Your task to perform on an android device: turn off notifications settings in the gmail app Image 0: 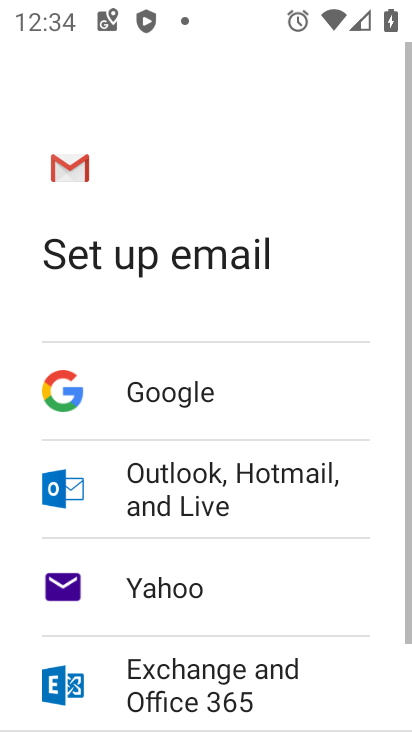
Step 0: press home button
Your task to perform on an android device: turn off notifications settings in the gmail app Image 1: 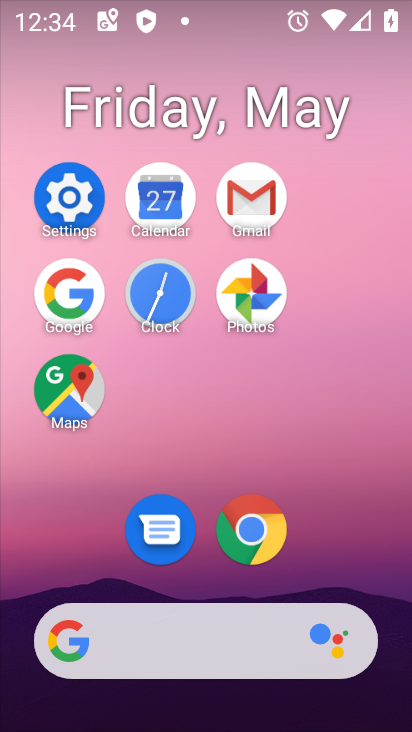
Step 1: click (269, 202)
Your task to perform on an android device: turn off notifications settings in the gmail app Image 2: 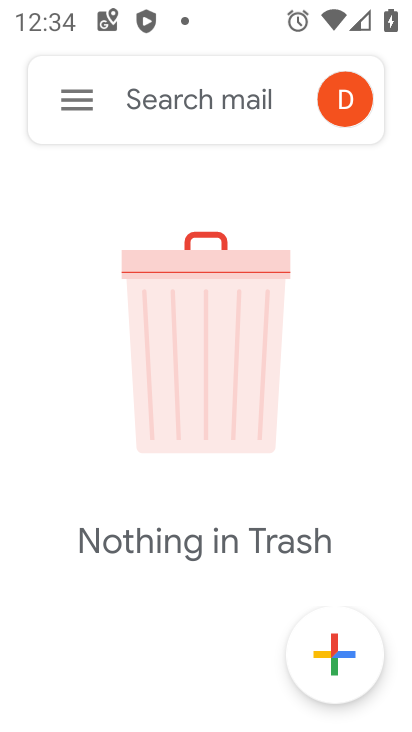
Step 2: click (84, 121)
Your task to perform on an android device: turn off notifications settings in the gmail app Image 3: 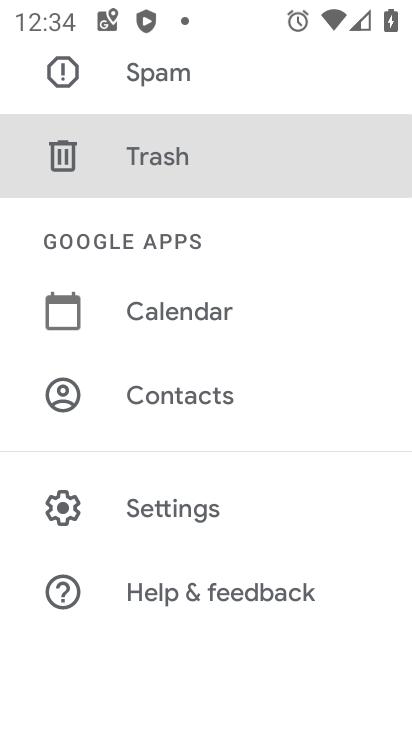
Step 3: click (235, 512)
Your task to perform on an android device: turn off notifications settings in the gmail app Image 4: 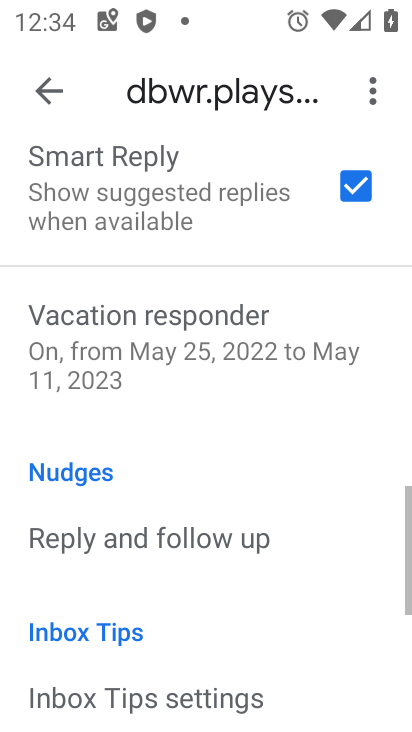
Step 4: drag from (239, 503) to (262, 188)
Your task to perform on an android device: turn off notifications settings in the gmail app Image 5: 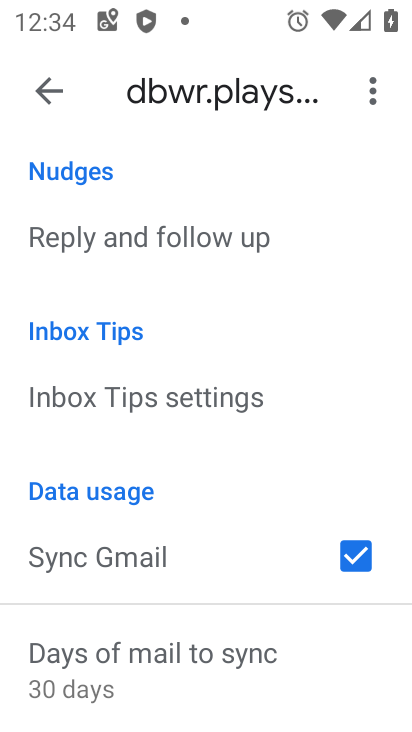
Step 5: drag from (249, 527) to (273, 154)
Your task to perform on an android device: turn off notifications settings in the gmail app Image 6: 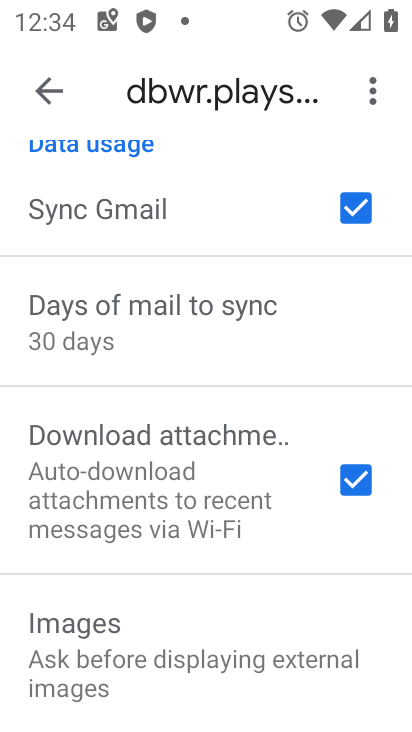
Step 6: drag from (233, 536) to (229, 168)
Your task to perform on an android device: turn off notifications settings in the gmail app Image 7: 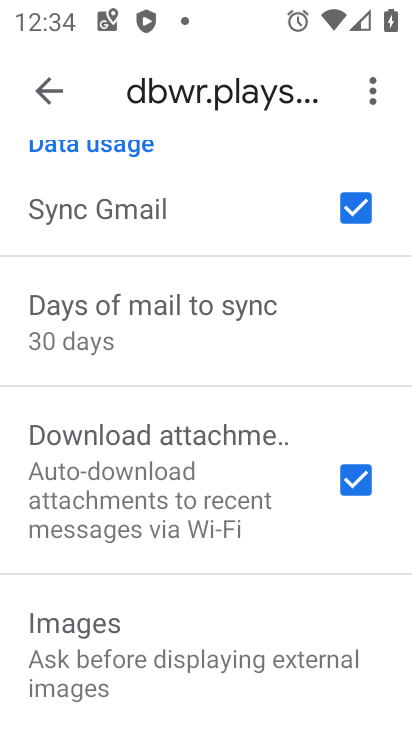
Step 7: drag from (235, 141) to (252, 614)
Your task to perform on an android device: turn off notifications settings in the gmail app Image 8: 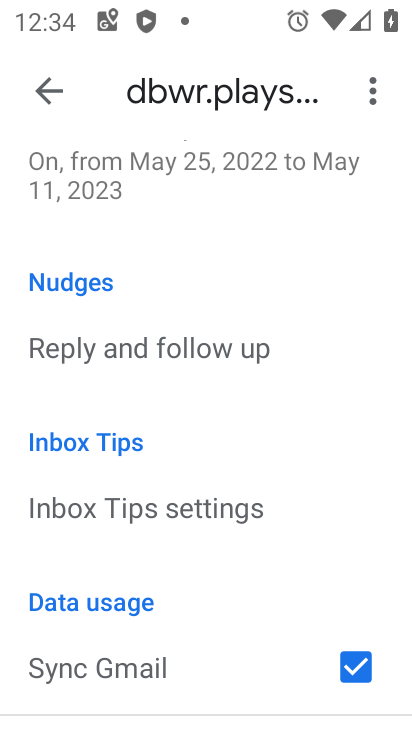
Step 8: drag from (319, 437) to (349, 623)
Your task to perform on an android device: turn off notifications settings in the gmail app Image 9: 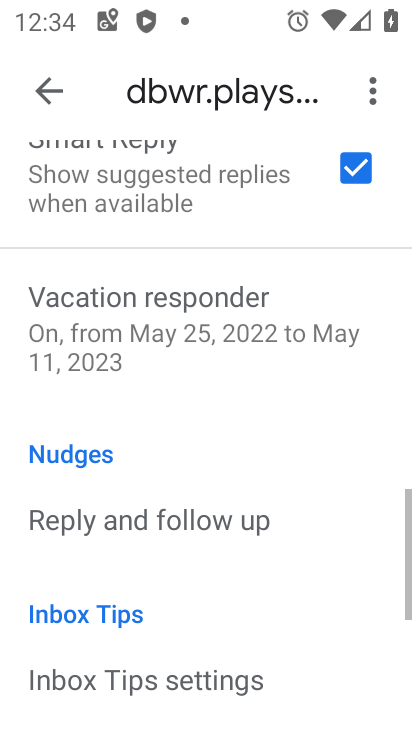
Step 9: drag from (306, 533) to (292, 697)
Your task to perform on an android device: turn off notifications settings in the gmail app Image 10: 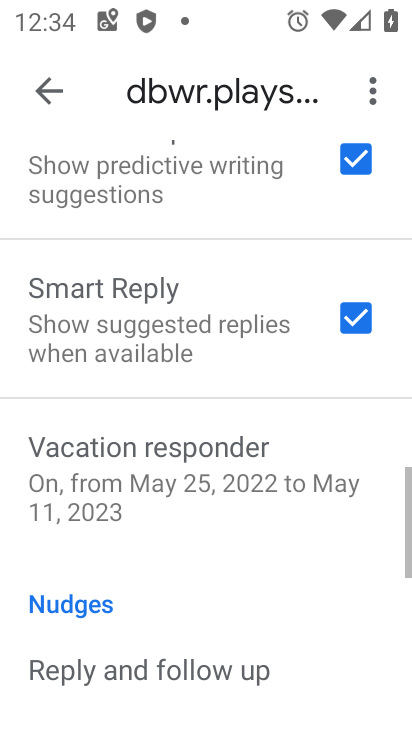
Step 10: drag from (274, 294) to (259, 626)
Your task to perform on an android device: turn off notifications settings in the gmail app Image 11: 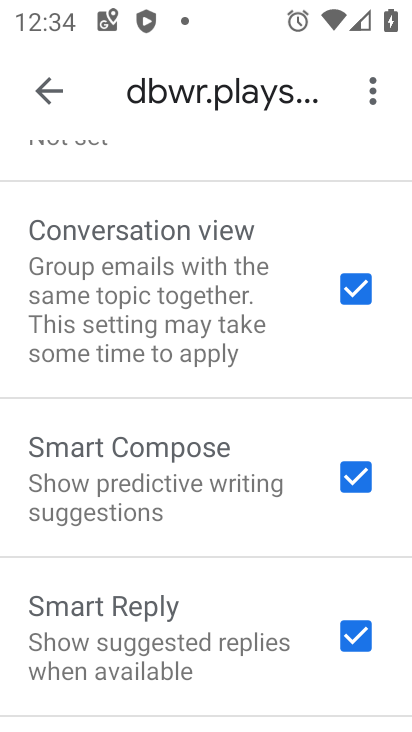
Step 11: drag from (213, 187) to (195, 691)
Your task to perform on an android device: turn off notifications settings in the gmail app Image 12: 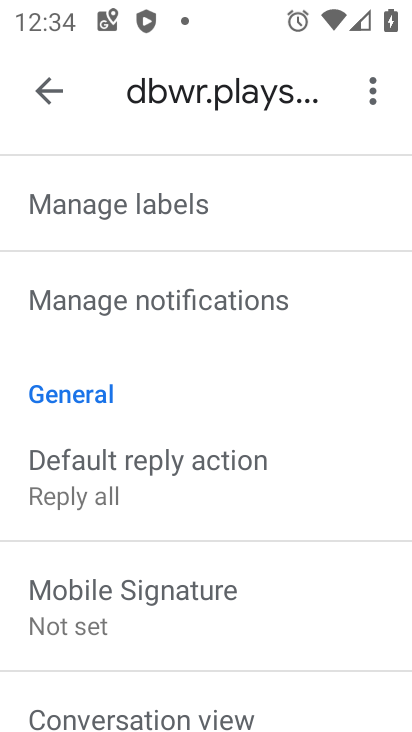
Step 12: drag from (282, 268) to (261, 678)
Your task to perform on an android device: turn off notifications settings in the gmail app Image 13: 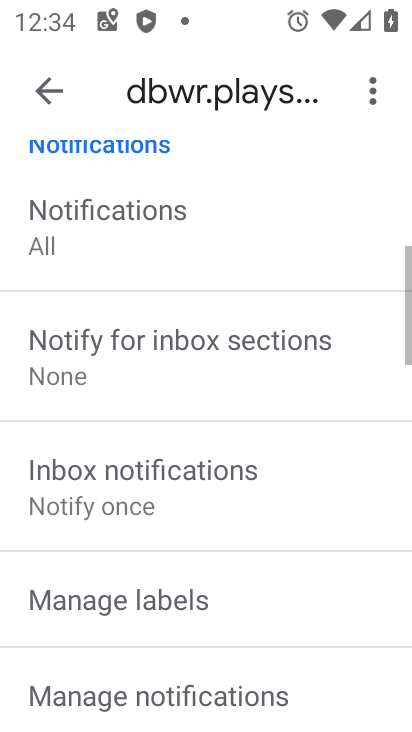
Step 13: click (223, 229)
Your task to perform on an android device: turn off notifications settings in the gmail app Image 14: 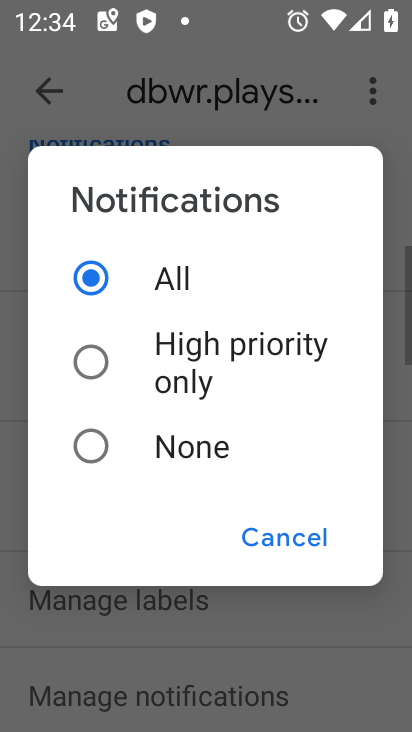
Step 14: click (200, 442)
Your task to perform on an android device: turn off notifications settings in the gmail app Image 15: 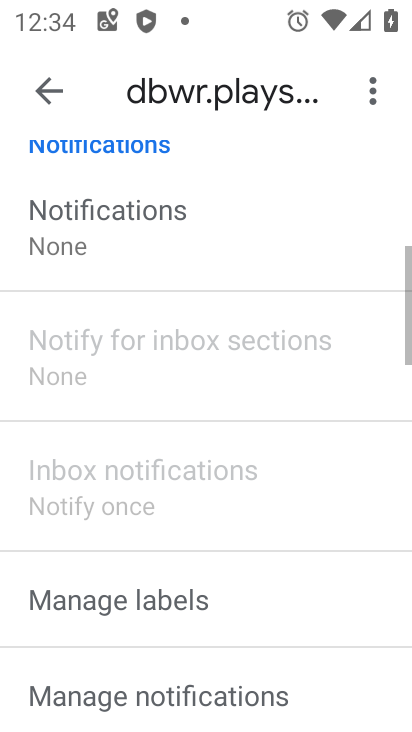
Step 15: task complete